Your task to perform on an android device: install app "Upside-Cash back on gas & food" Image 0: 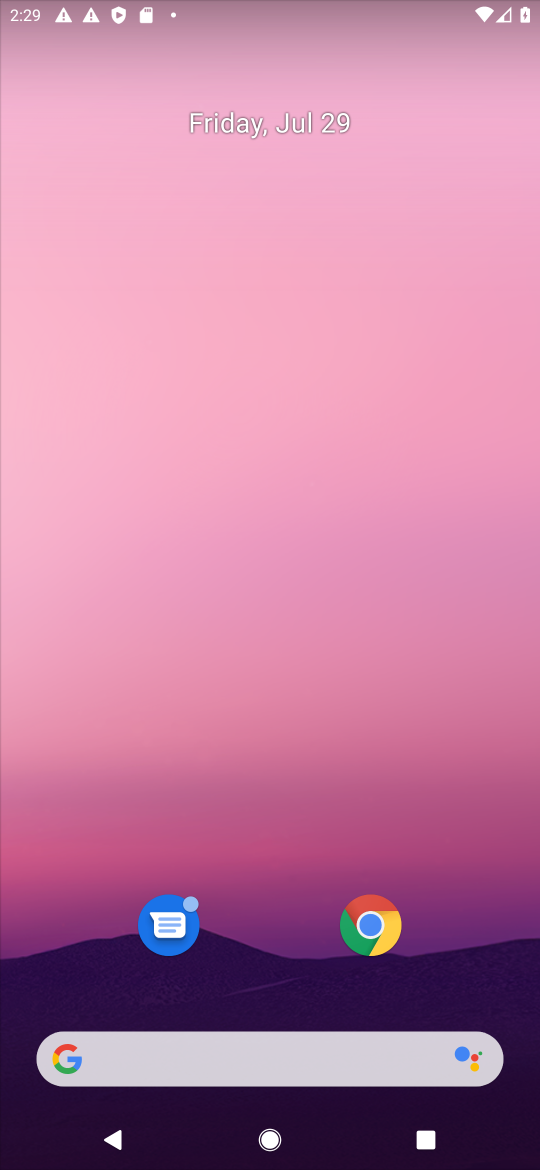
Step 0: drag from (270, 837) to (310, 0)
Your task to perform on an android device: install app "Upside-Cash back on gas & food" Image 1: 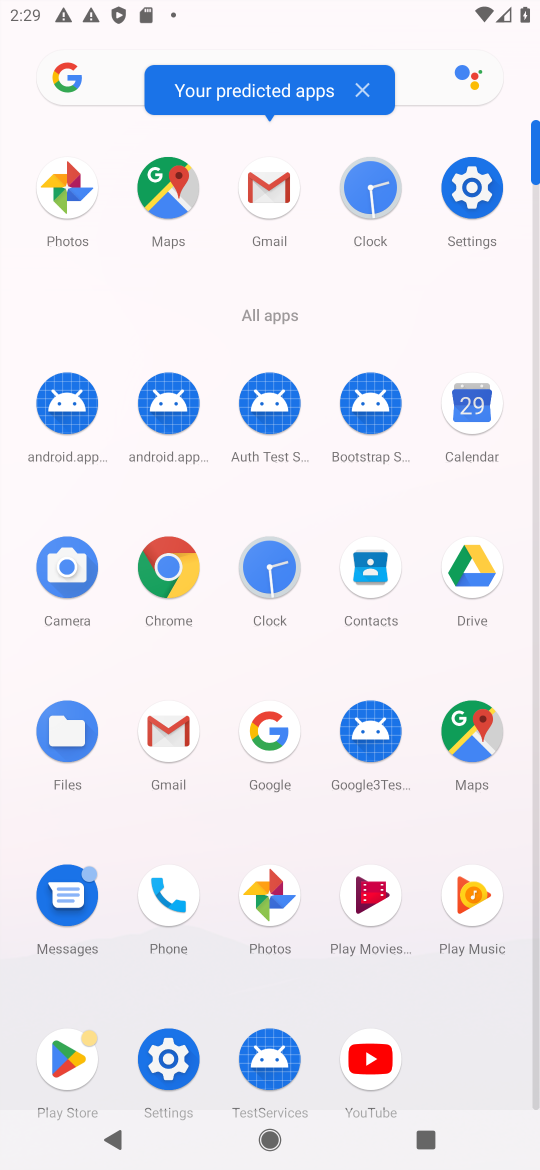
Step 1: click (65, 1047)
Your task to perform on an android device: install app "Upside-Cash back on gas & food" Image 2: 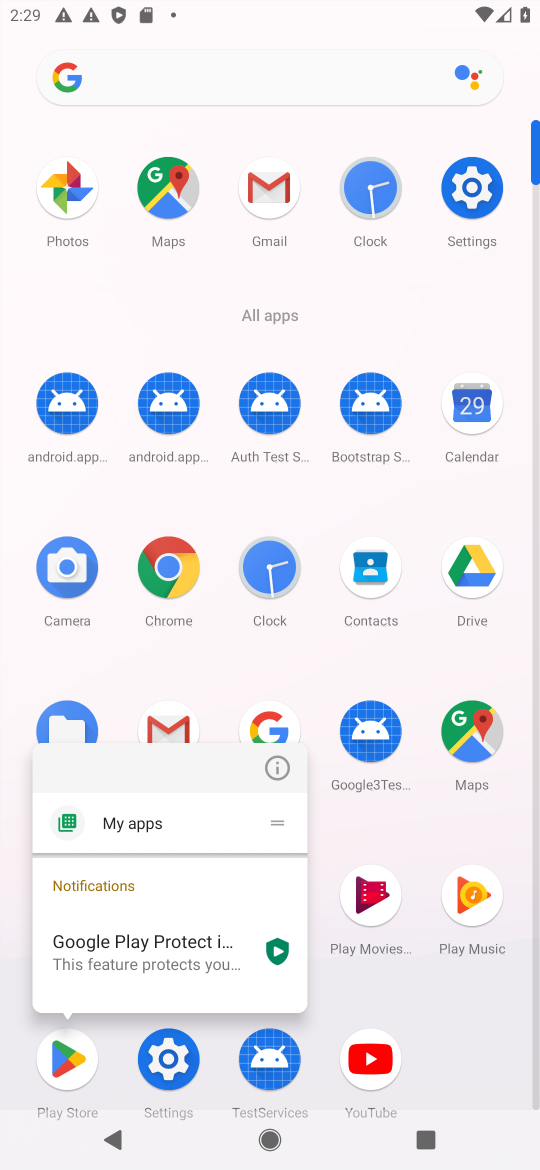
Step 2: click (65, 1047)
Your task to perform on an android device: install app "Upside-Cash back on gas & food" Image 3: 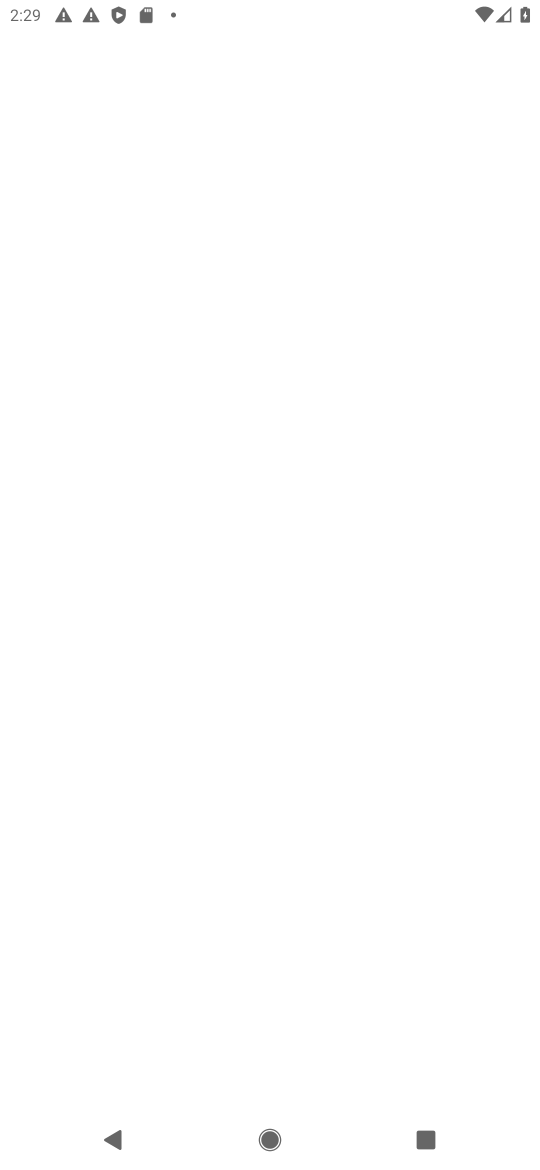
Step 3: click (114, 592)
Your task to perform on an android device: install app "Upside-Cash back on gas & food" Image 4: 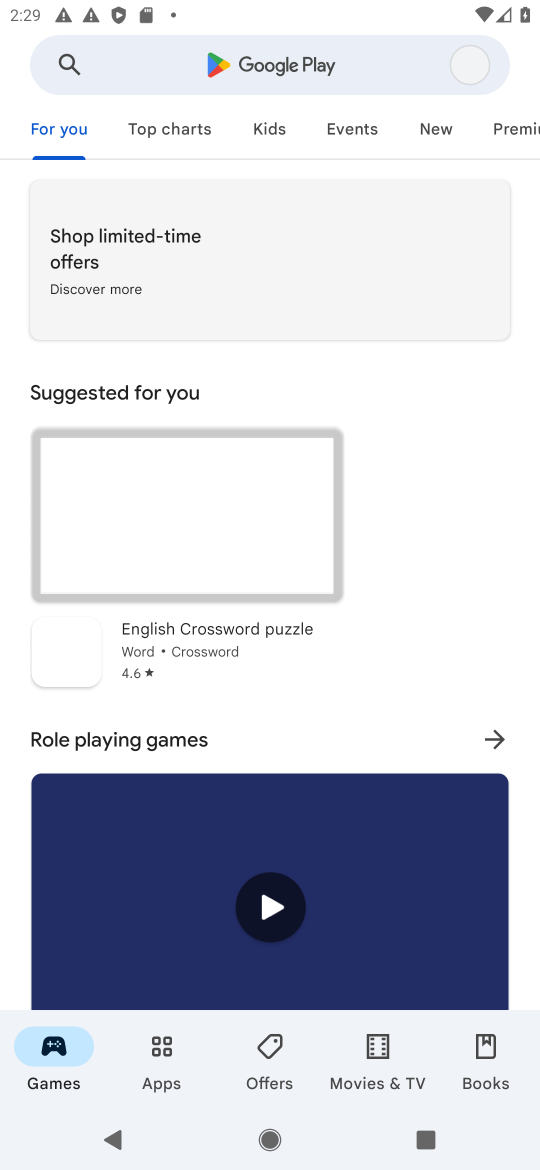
Step 4: click (251, 82)
Your task to perform on an android device: install app "Upside-Cash back on gas & food" Image 5: 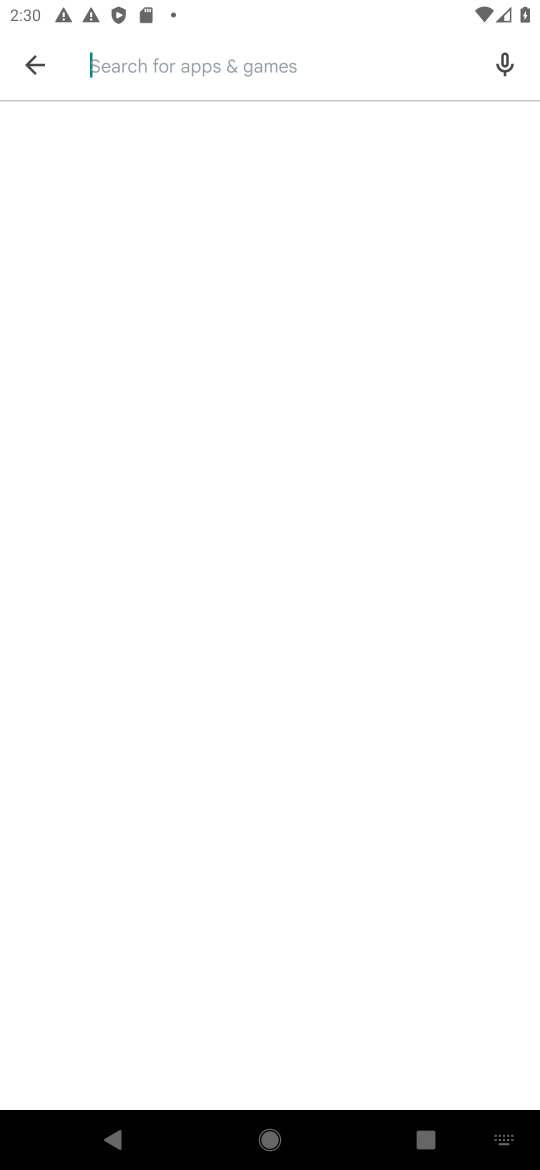
Step 5: type "Upside-Cash back on gas & food"
Your task to perform on an android device: install app "Upside-Cash back on gas & food" Image 6: 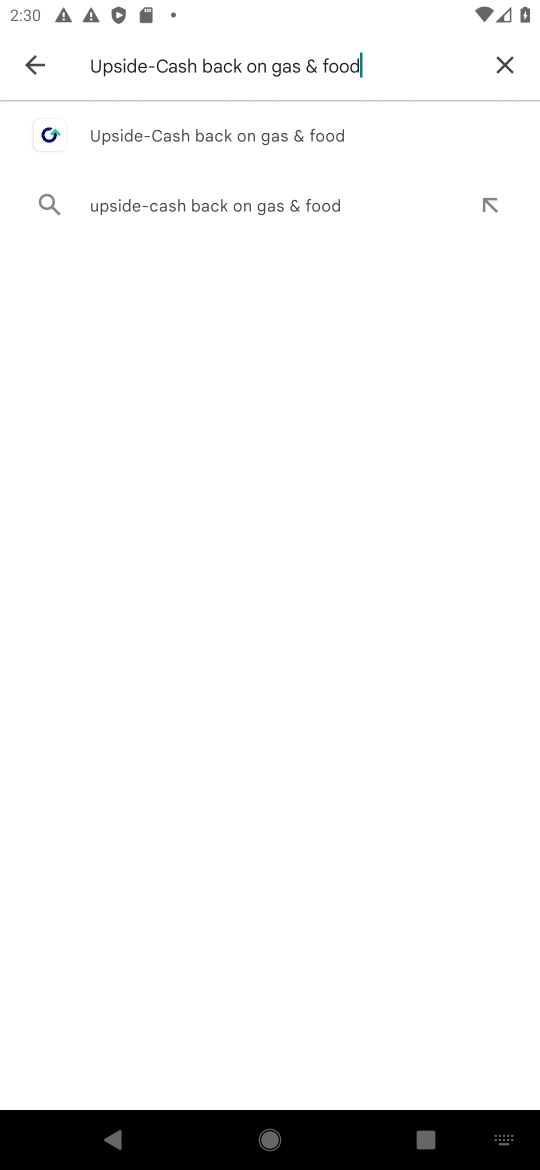
Step 6: click (185, 140)
Your task to perform on an android device: install app "Upside-Cash back on gas & food" Image 7: 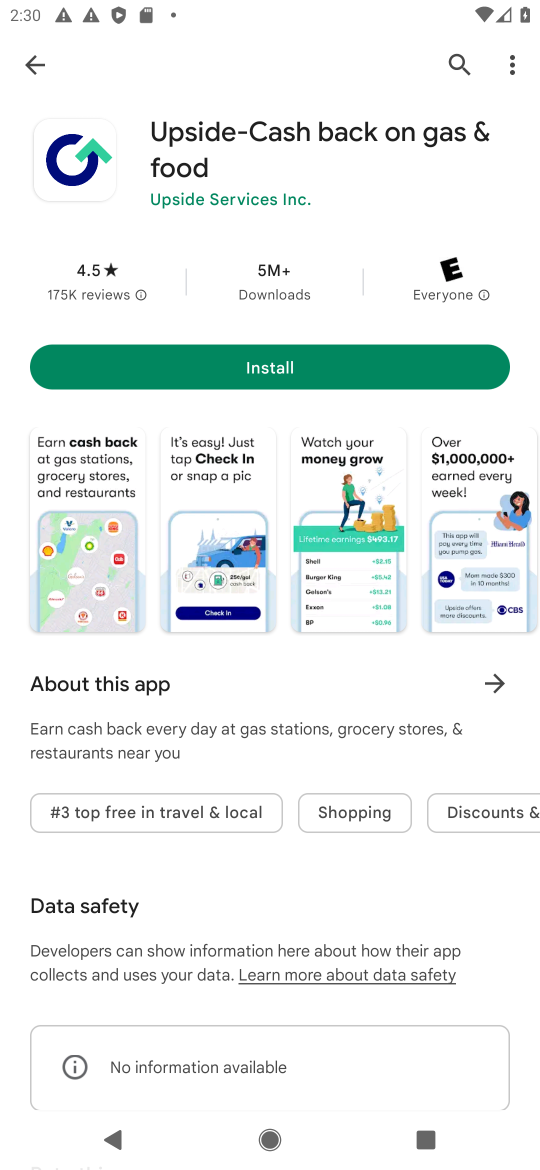
Step 7: click (256, 372)
Your task to perform on an android device: install app "Upside-Cash back on gas & food" Image 8: 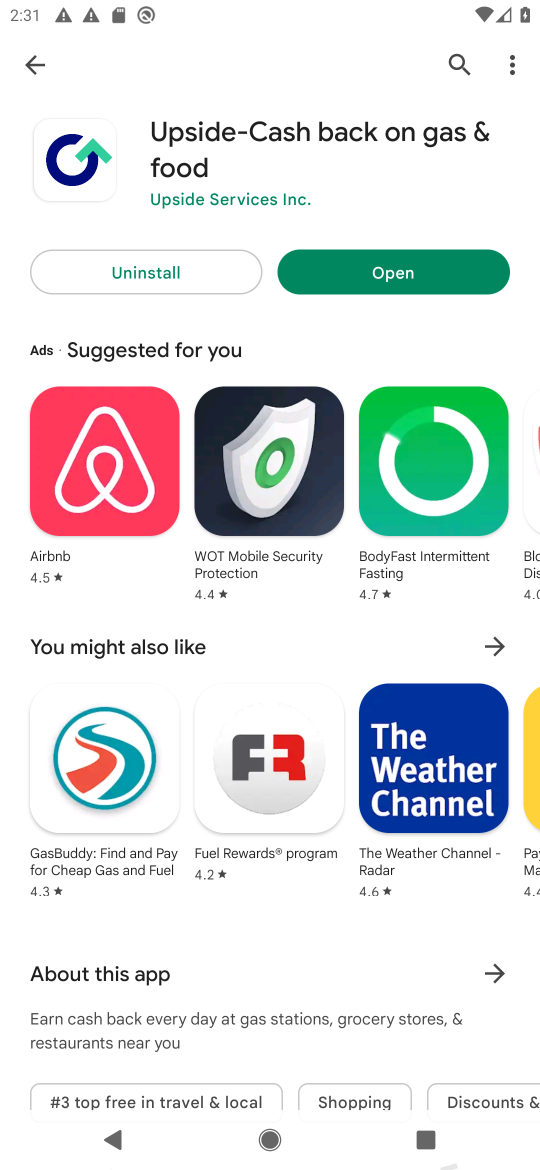
Step 8: task complete